Your task to perform on an android device: turn off location history Image 0: 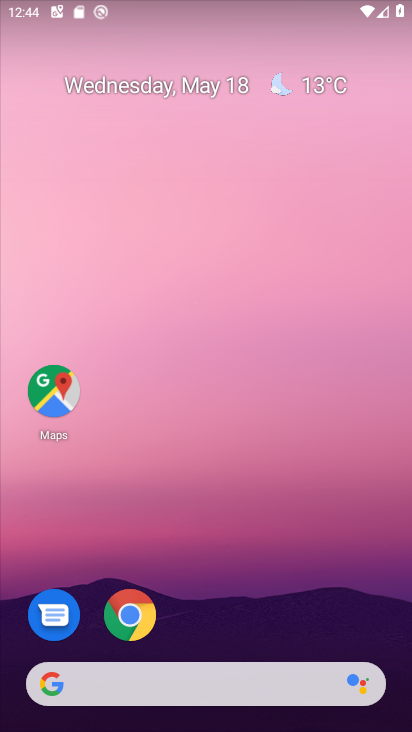
Step 0: click (384, 258)
Your task to perform on an android device: turn off location history Image 1: 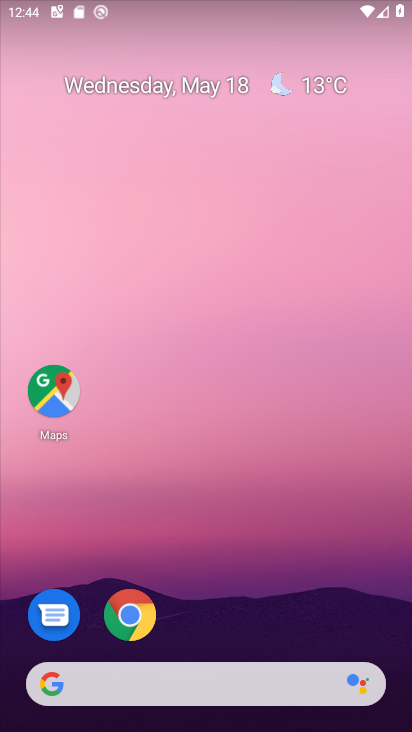
Step 1: drag from (399, 640) to (365, 278)
Your task to perform on an android device: turn off location history Image 2: 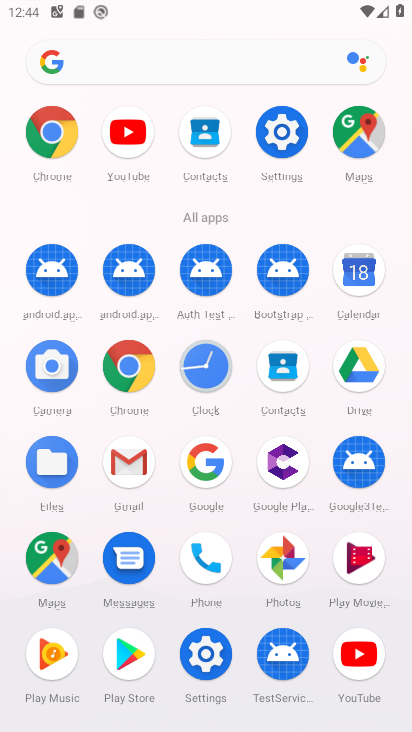
Step 2: click (283, 128)
Your task to perform on an android device: turn off location history Image 3: 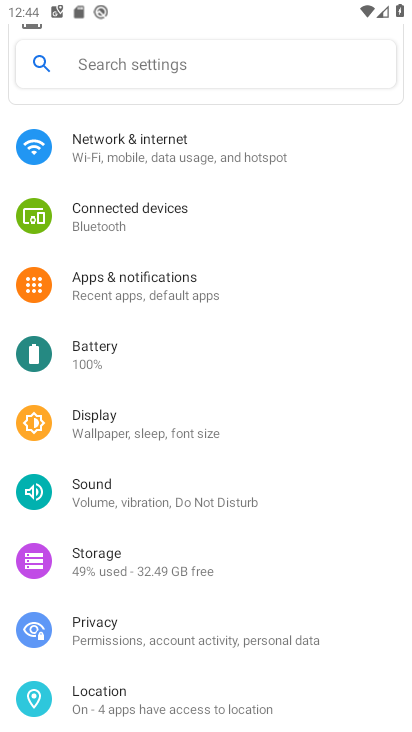
Step 3: click (92, 697)
Your task to perform on an android device: turn off location history Image 4: 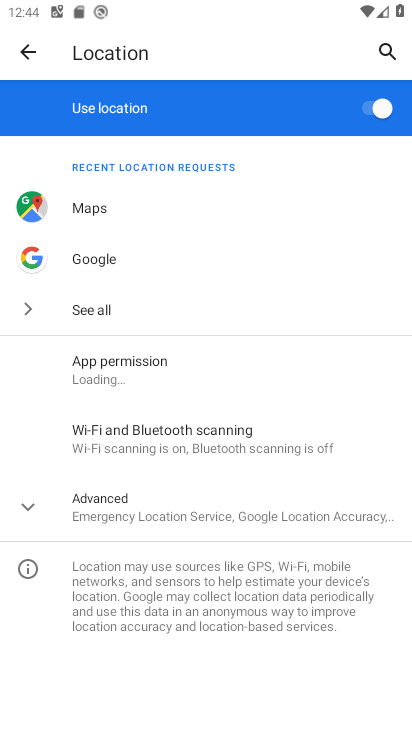
Step 4: click (31, 503)
Your task to perform on an android device: turn off location history Image 5: 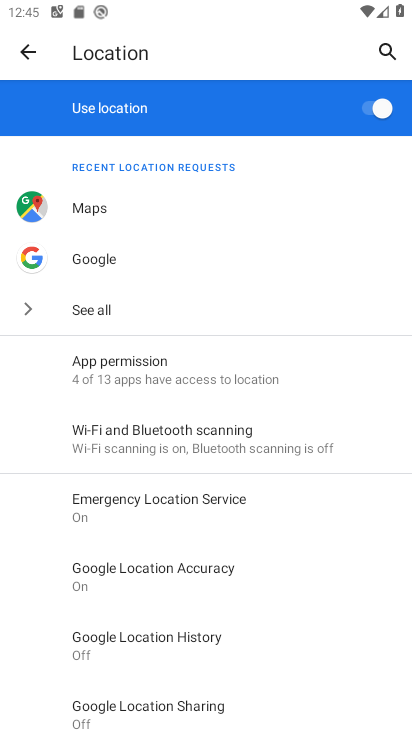
Step 5: click (132, 637)
Your task to perform on an android device: turn off location history Image 6: 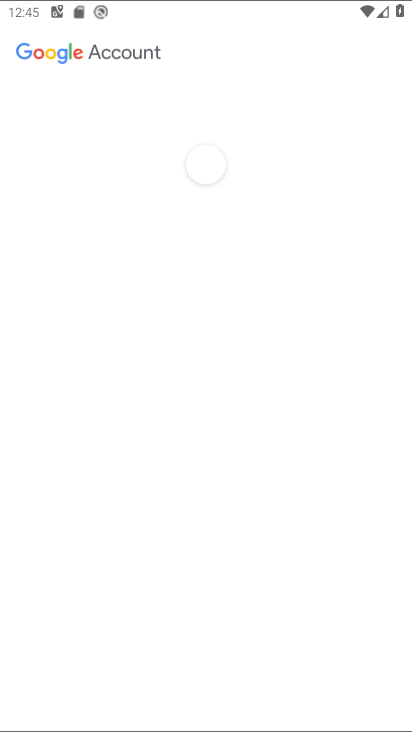
Step 6: task complete